Your task to perform on an android device: Open maps Image 0: 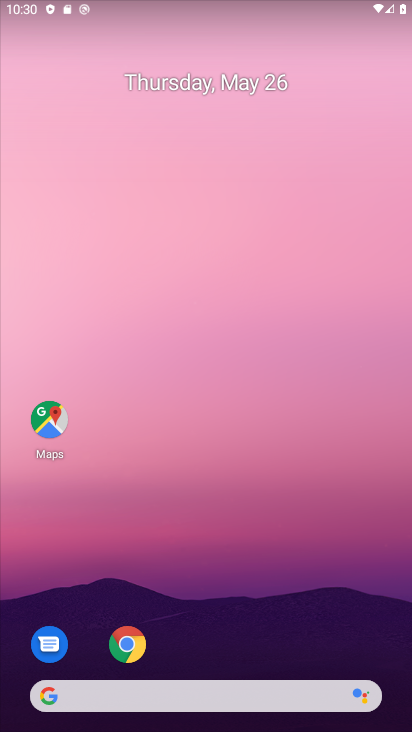
Step 0: click (61, 422)
Your task to perform on an android device: Open maps Image 1: 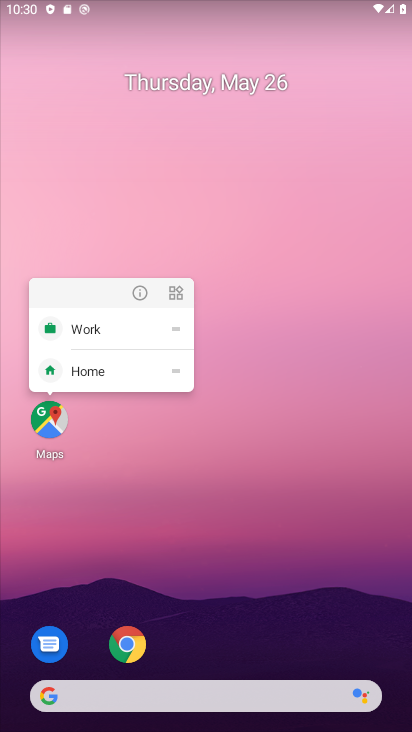
Step 1: click (54, 424)
Your task to perform on an android device: Open maps Image 2: 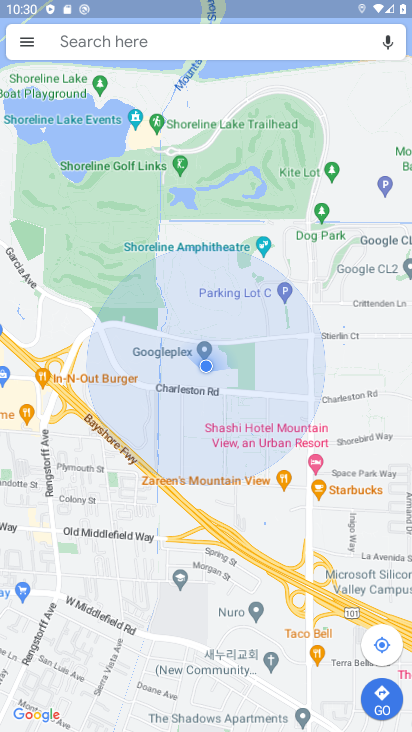
Step 2: task complete